Your task to perform on an android device: Do I have any events tomorrow? Image 0: 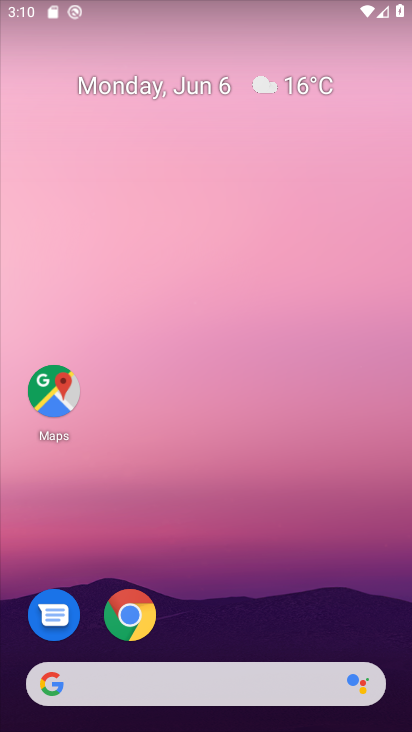
Step 0: drag from (379, 608) to (327, 54)
Your task to perform on an android device: Do I have any events tomorrow? Image 1: 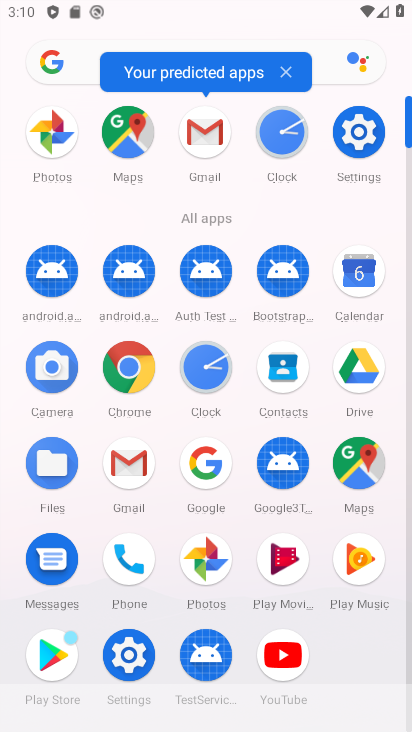
Step 1: click (358, 271)
Your task to perform on an android device: Do I have any events tomorrow? Image 2: 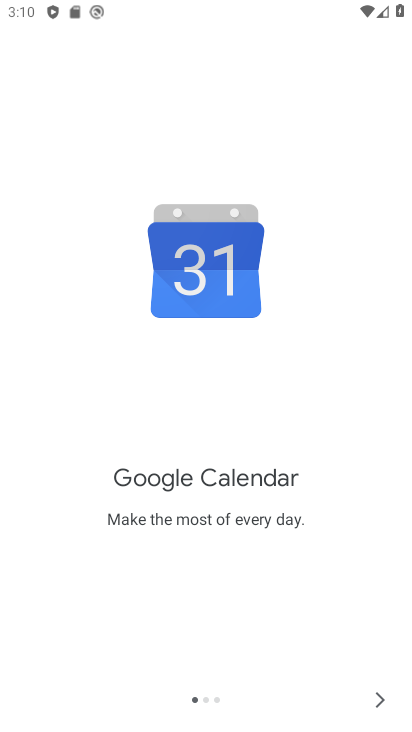
Step 2: click (378, 695)
Your task to perform on an android device: Do I have any events tomorrow? Image 3: 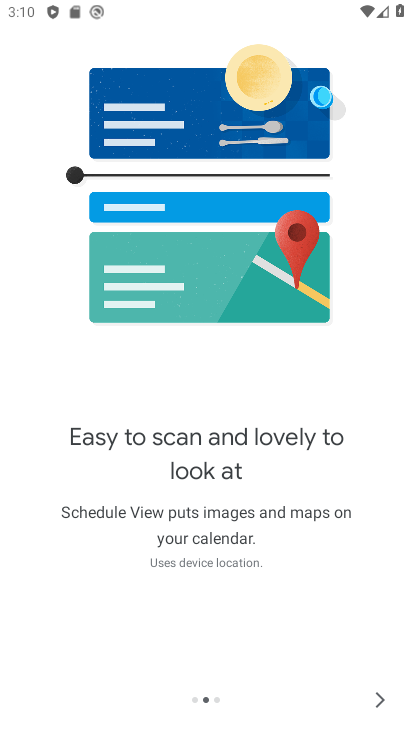
Step 3: click (378, 695)
Your task to perform on an android device: Do I have any events tomorrow? Image 4: 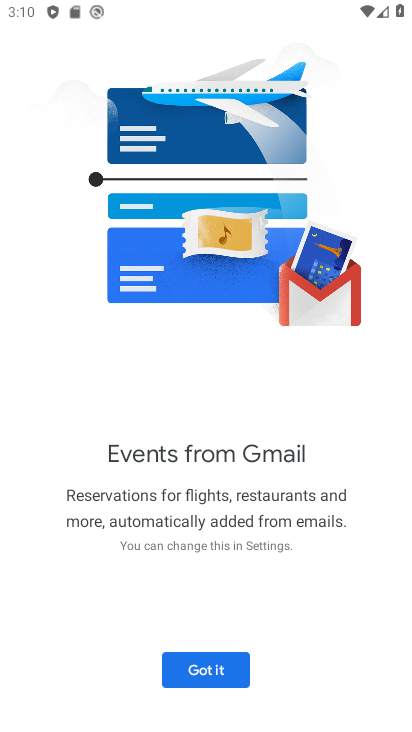
Step 4: click (194, 665)
Your task to perform on an android device: Do I have any events tomorrow? Image 5: 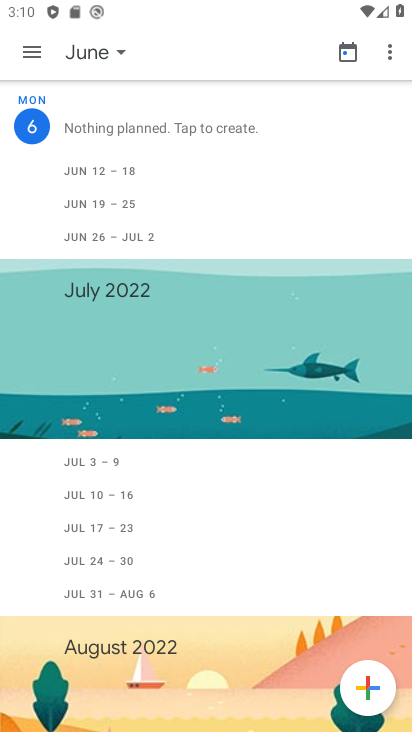
Step 5: click (39, 49)
Your task to perform on an android device: Do I have any events tomorrow? Image 6: 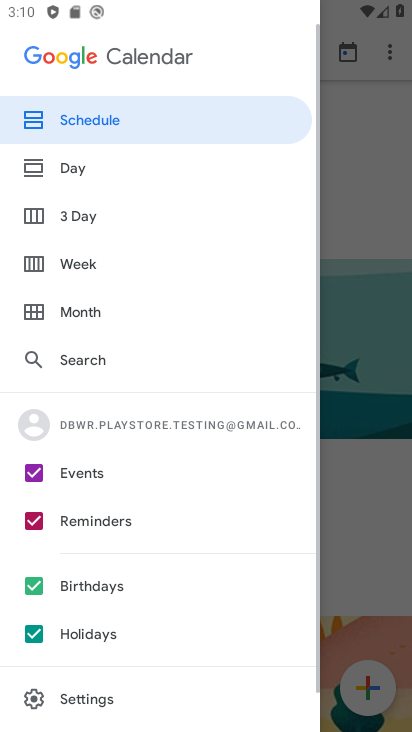
Step 6: click (73, 174)
Your task to perform on an android device: Do I have any events tomorrow? Image 7: 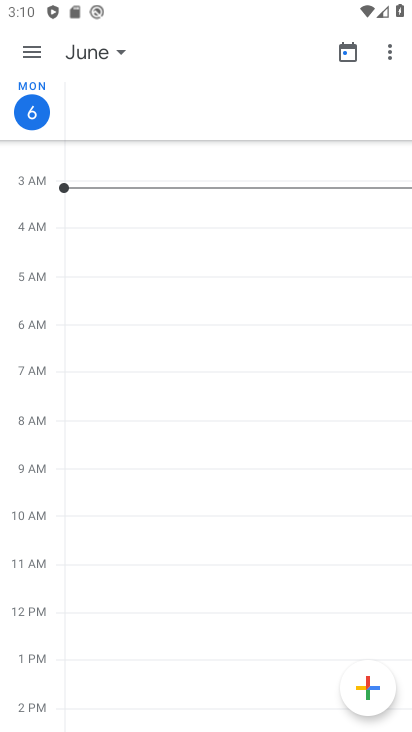
Step 7: click (122, 54)
Your task to perform on an android device: Do I have any events tomorrow? Image 8: 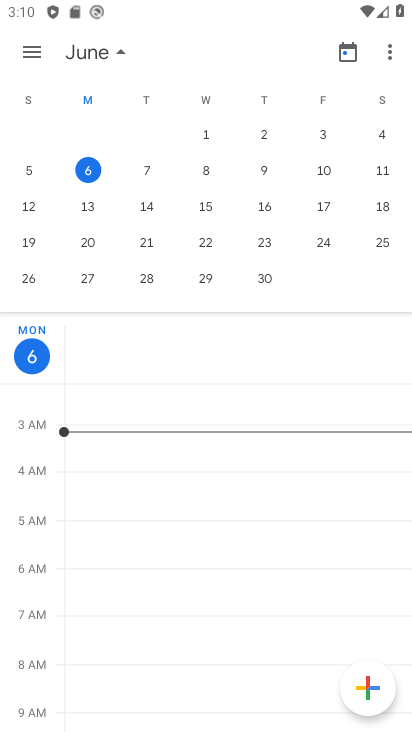
Step 8: click (152, 170)
Your task to perform on an android device: Do I have any events tomorrow? Image 9: 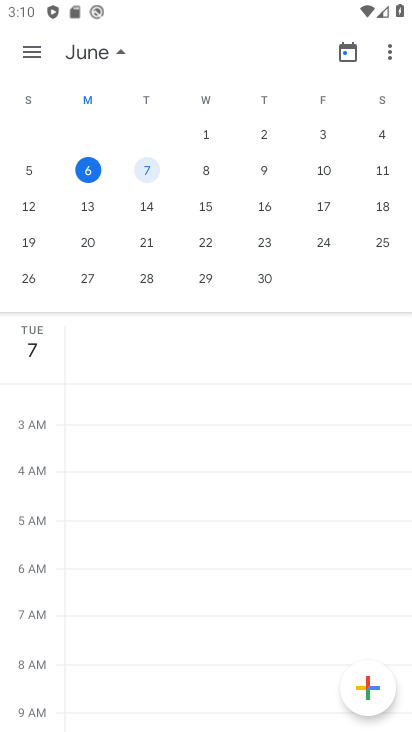
Step 9: task complete